Your task to perform on an android device: open a new tab in the chrome app Image 0: 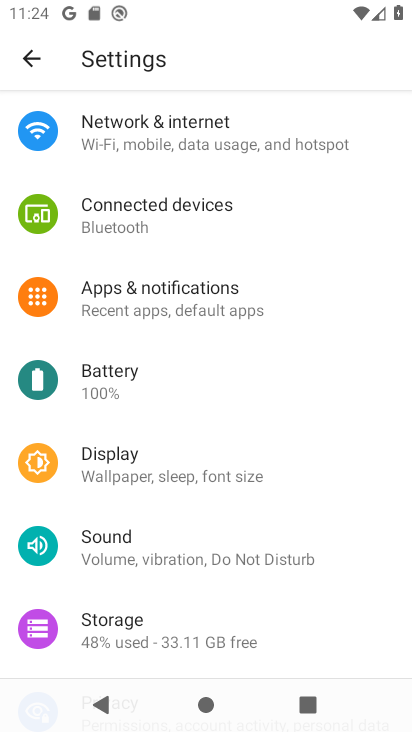
Step 0: press home button
Your task to perform on an android device: open a new tab in the chrome app Image 1: 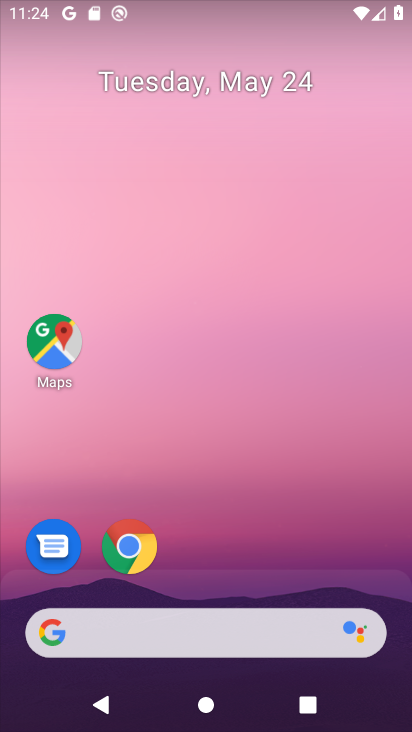
Step 1: click (148, 544)
Your task to perform on an android device: open a new tab in the chrome app Image 2: 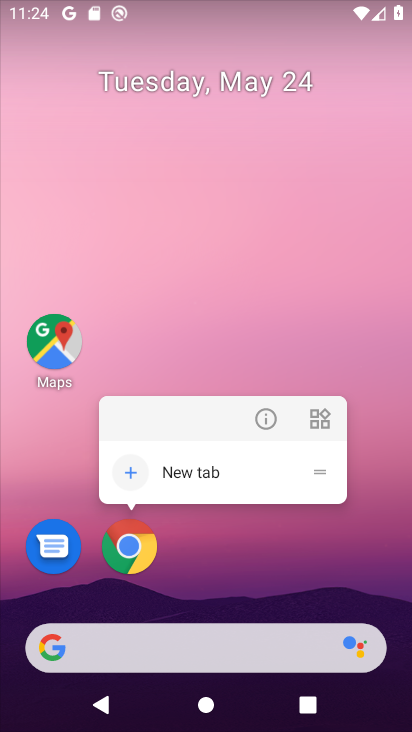
Step 2: click (148, 544)
Your task to perform on an android device: open a new tab in the chrome app Image 3: 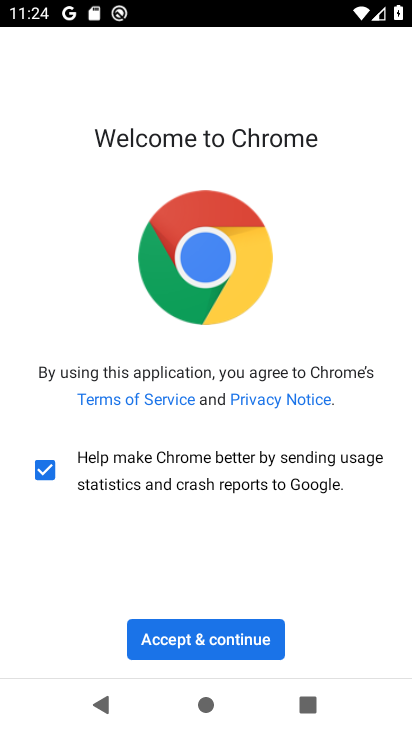
Step 3: click (213, 641)
Your task to perform on an android device: open a new tab in the chrome app Image 4: 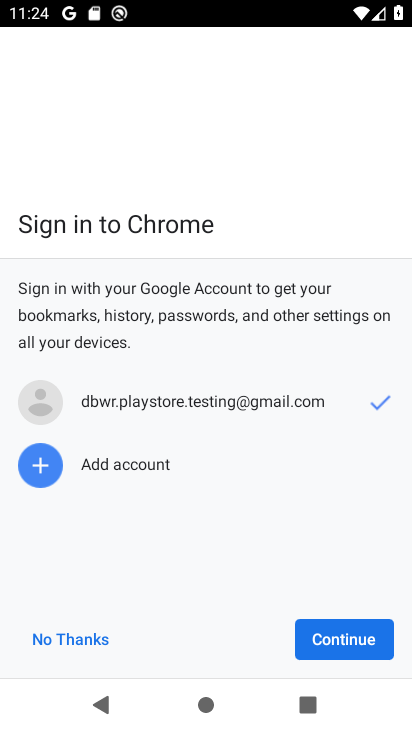
Step 4: click (398, 643)
Your task to perform on an android device: open a new tab in the chrome app Image 5: 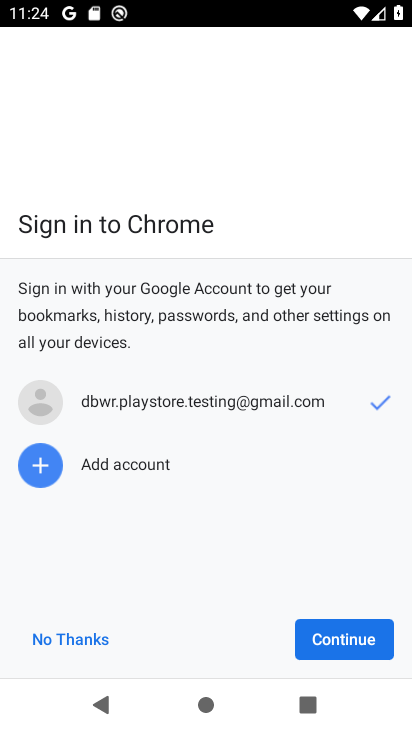
Step 5: click (353, 643)
Your task to perform on an android device: open a new tab in the chrome app Image 6: 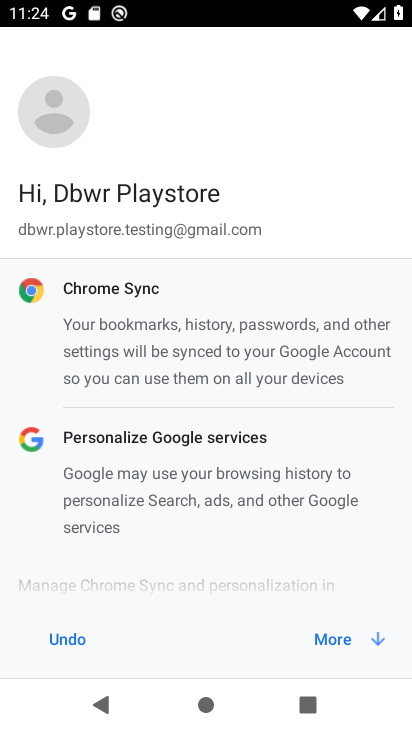
Step 6: click (352, 642)
Your task to perform on an android device: open a new tab in the chrome app Image 7: 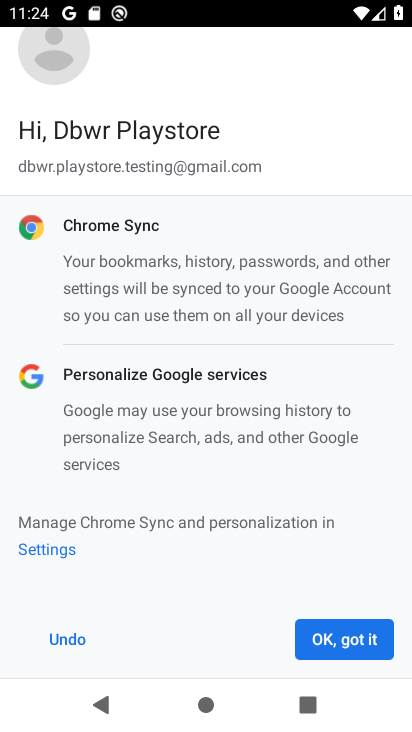
Step 7: click (351, 641)
Your task to perform on an android device: open a new tab in the chrome app Image 8: 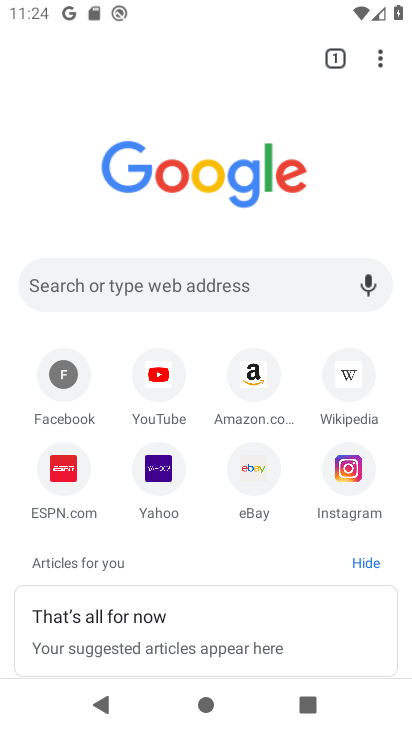
Step 8: click (381, 54)
Your task to perform on an android device: open a new tab in the chrome app Image 9: 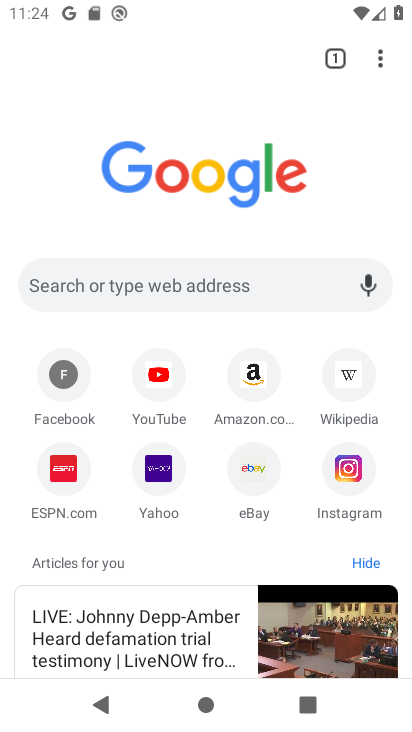
Step 9: click (381, 54)
Your task to perform on an android device: open a new tab in the chrome app Image 10: 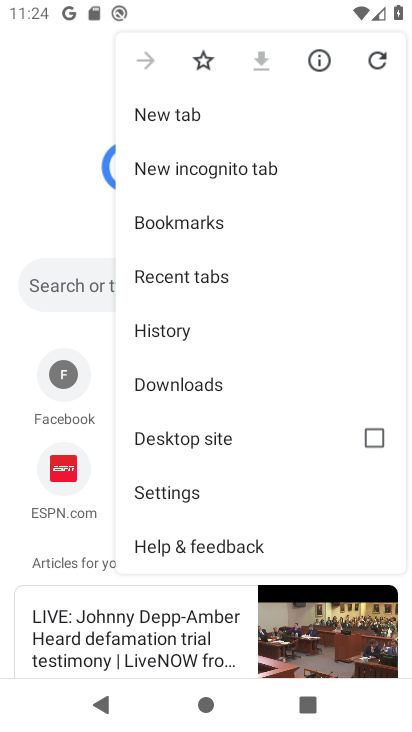
Step 10: click (194, 104)
Your task to perform on an android device: open a new tab in the chrome app Image 11: 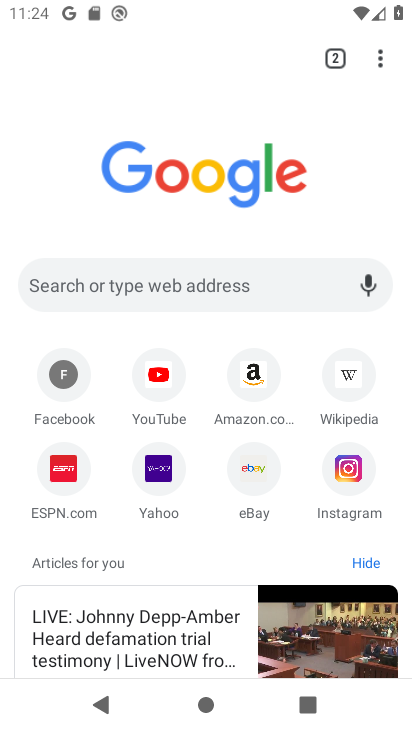
Step 11: task complete